Your task to perform on an android device: turn off data saver in the chrome app Image 0: 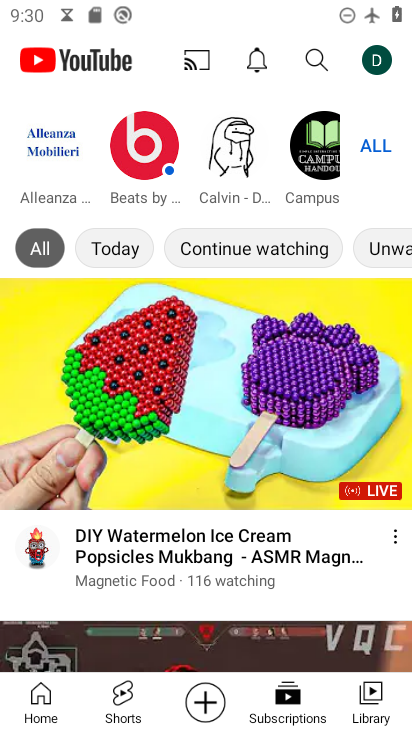
Step 0: press home button
Your task to perform on an android device: turn off data saver in the chrome app Image 1: 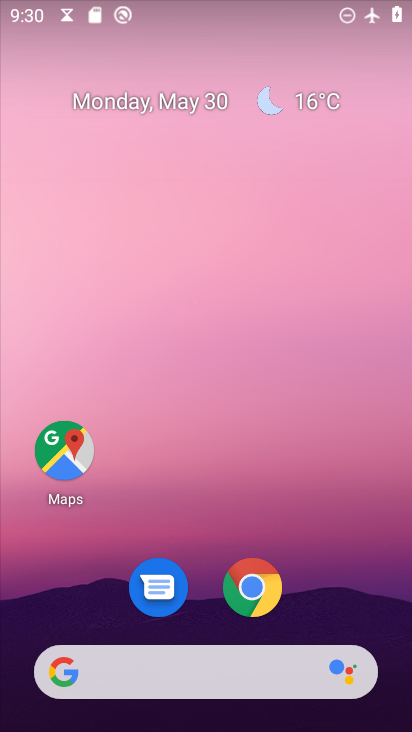
Step 1: click (257, 601)
Your task to perform on an android device: turn off data saver in the chrome app Image 2: 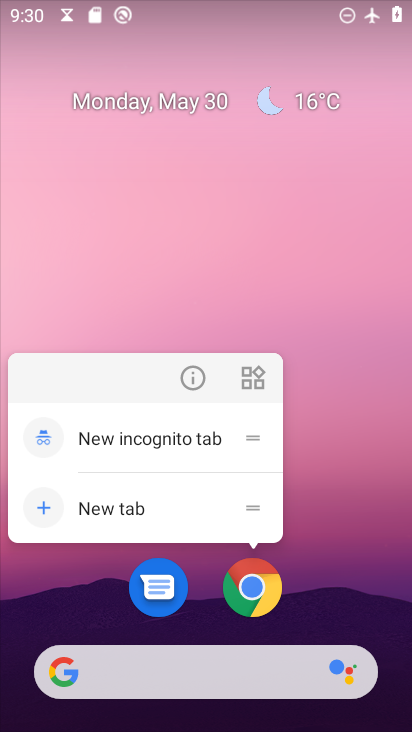
Step 2: click (257, 601)
Your task to perform on an android device: turn off data saver in the chrome app Image 3: 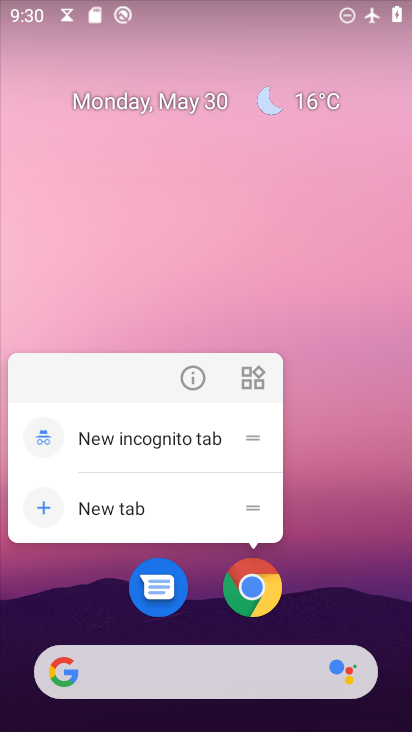
Step 3: click (246, 590)
Your task to perform on an android device: turn off data saver in the chrome app Image 4: 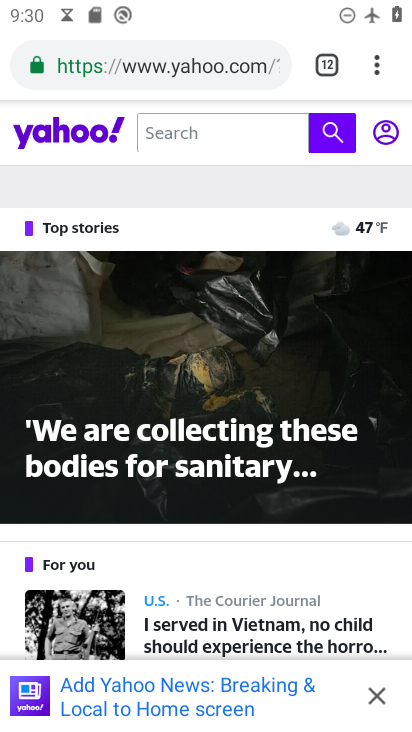
Step 4: drag from (379, 72) to (244, 646)
Your task to perform on an android device: turn off data saver in the chrome app Image 5: 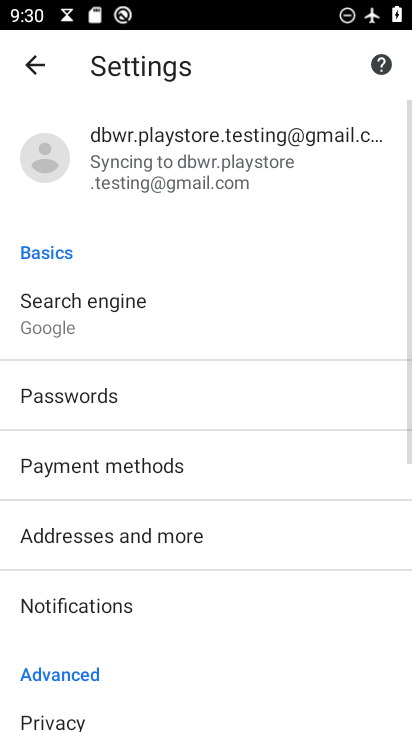
Step 5: drag from (207, 681) to (364, 240)
Your task to perform on an android device: turn off data saver in the chrome app Image 6: 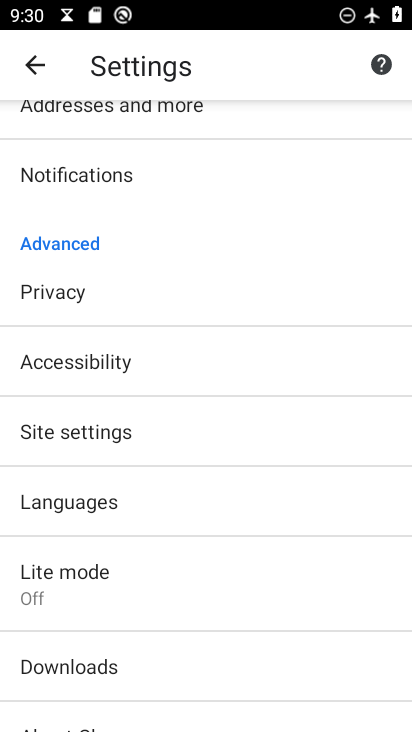
Step 6: click (111, 595)
Your task to perform on an android device: turn off data saver in the chrome app Image 7: 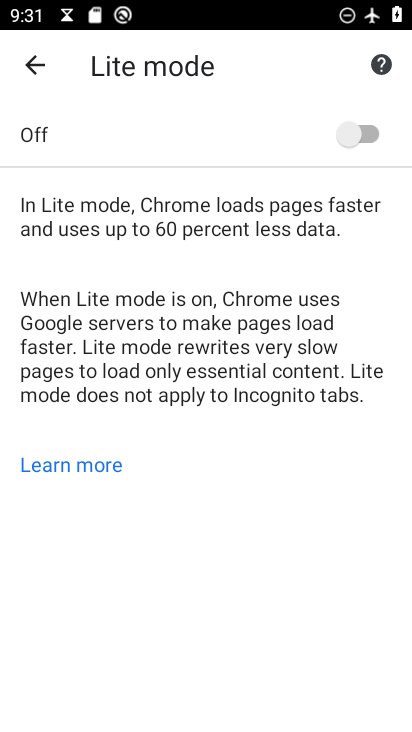
Step 7: task complete